Your task to perform on an android device: turn off sleep mode Image 0: 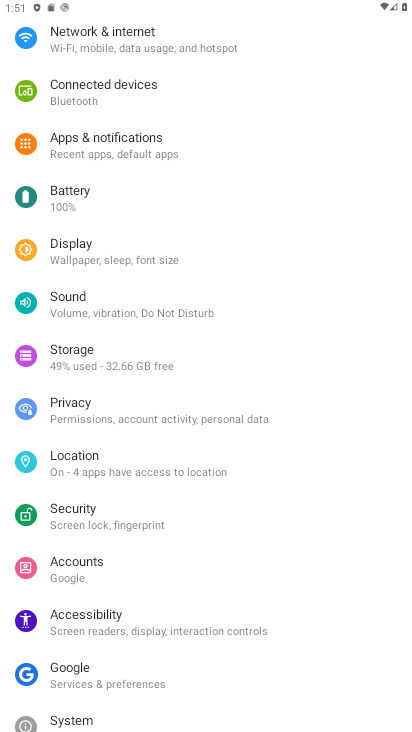
Step 0: press home button
Your task to perform on an android device: turn off sleep mode Image 1: 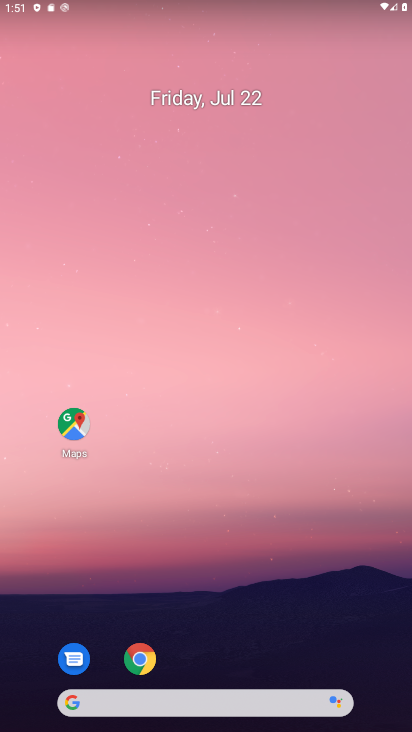
Step 1: drag from (307, 626) to (409, 126)
Your task to perform on an android device: turn off sleep mode Image 2: 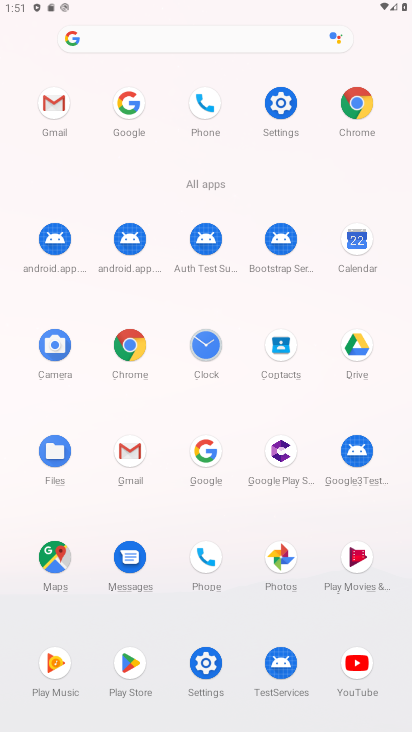
Step 2: click (285, 105)
Your task to perform on an android device: turn off sleep mode Image 3: 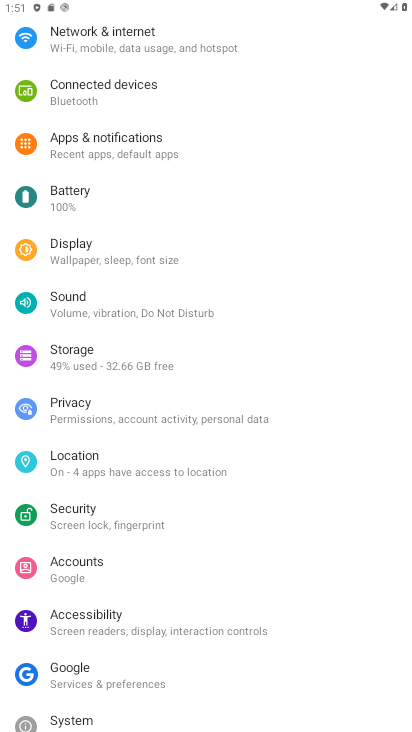
Step 3: click (129, 252)
Your task to perform on an android device: turn off sleep mode Image 4: 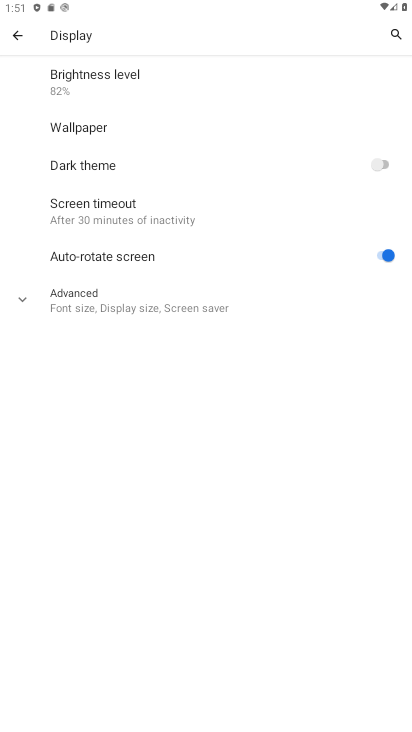
Step 4: click (119, 294)
Your task to perform on an android device: turn off sleep mode Image 5: 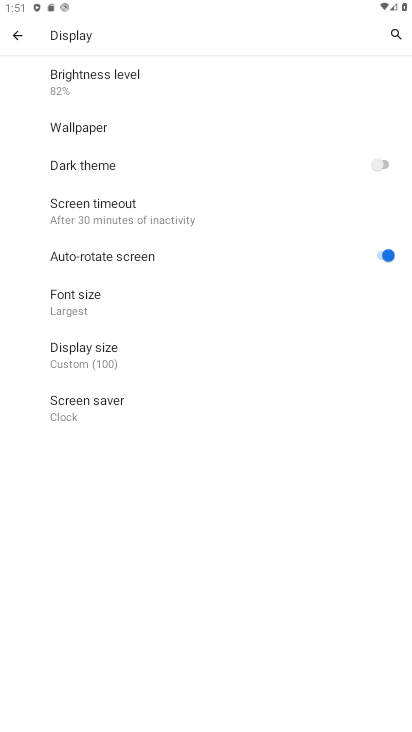
Step 5: task complete